Your task to perform on an android device: change the clock display to analog Image 0: 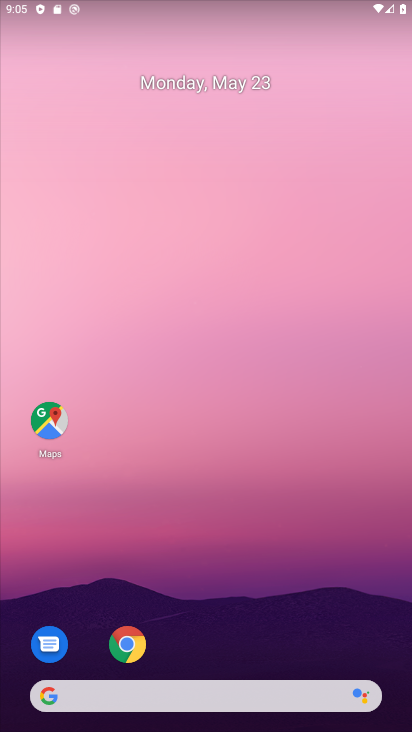
Step 0: drag from (237, 474) to (163, 130)
Your task to perform on an android device: change the clock display to analog Image 1: 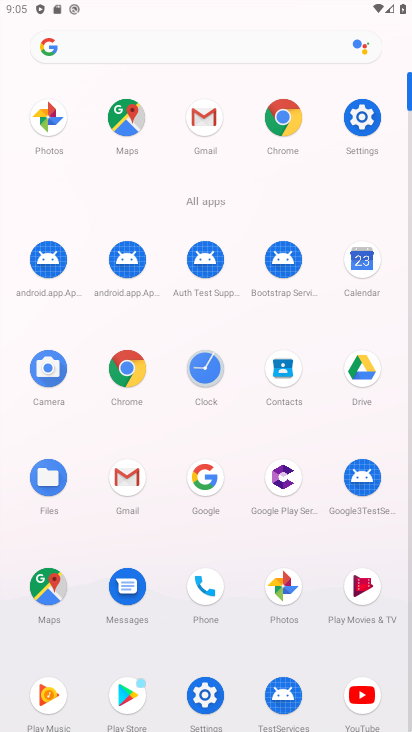
Step 1: click (206, 374)
Your task to perform on an android device: change the clock display to analog Image 2: 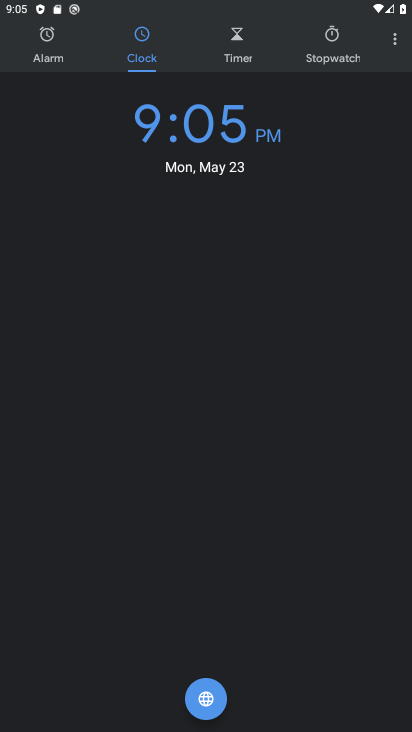
Step 2: click (386, 50)
Your task to perform on an android device: change the clock display to analog Image 3: 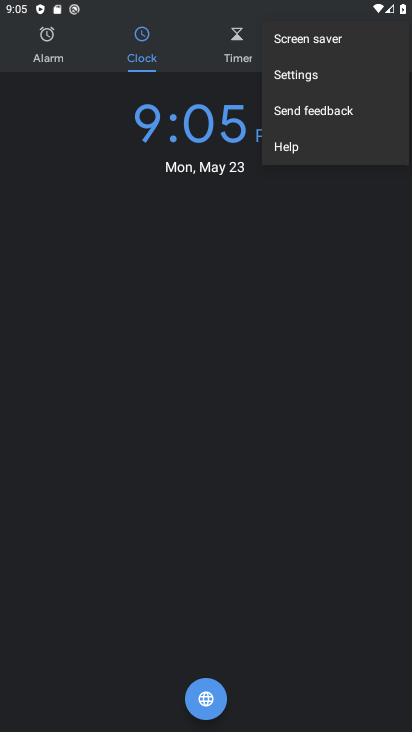
Step 3: click (307, 69)
Your task to perform on an android device: change the clock display to analog Image 4: 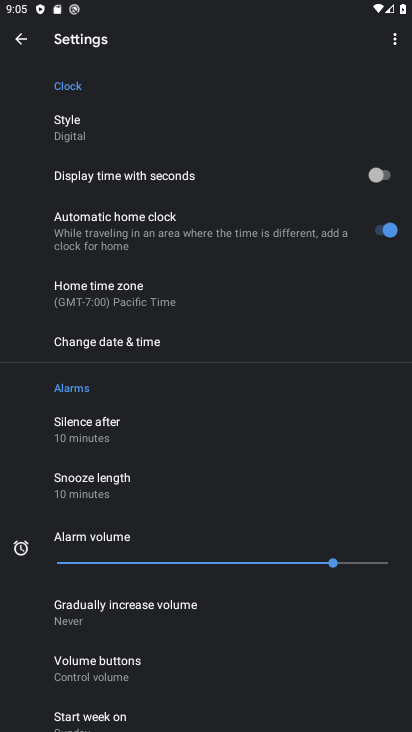
Step 4: click (160, 139)
Your task to perform on an android device: change the clock display to analog Image 5: 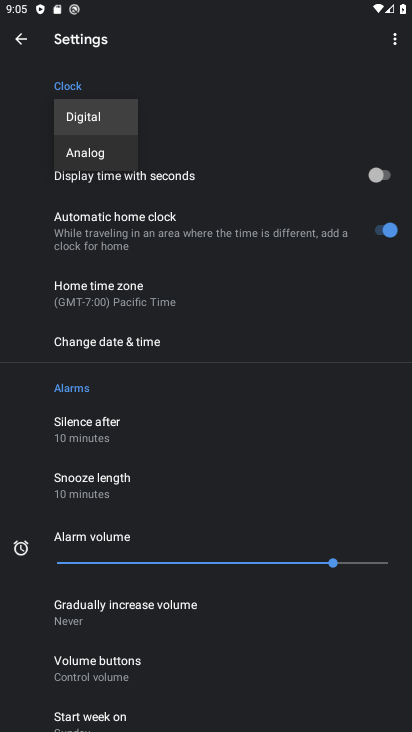
Step 5: click (112, 156)
Your task to perform on an android device: change the clock display to analog Image 6: 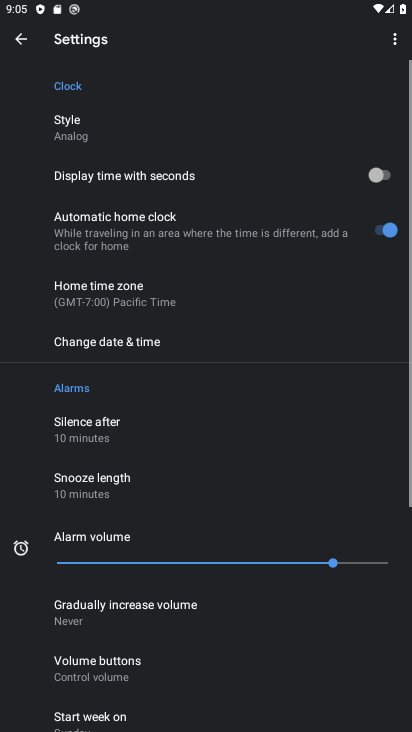
Step 6: task complete